Your task to perform on an android device: all mails in gmail Image 0: 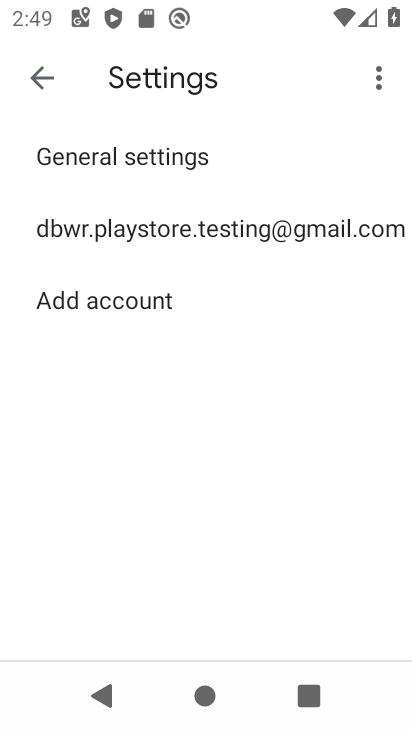
Step 0: press home button
Your task to perform on an android device: all mails in gmail Image 1: 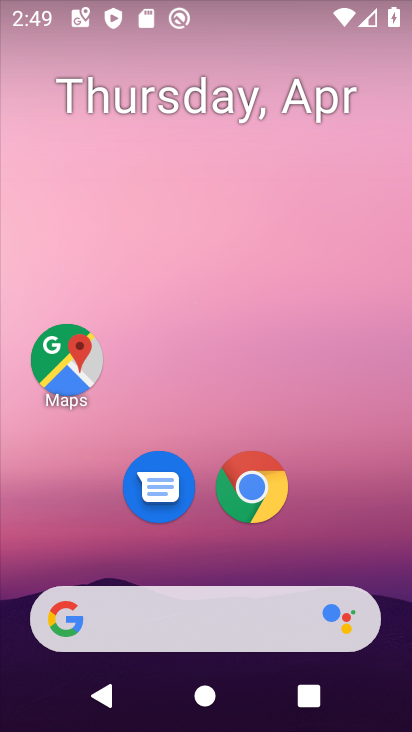
Step 1: drag from (214, 528) to (274, 118)
Your task to perform on an android device: all mails in gmail Image 2: 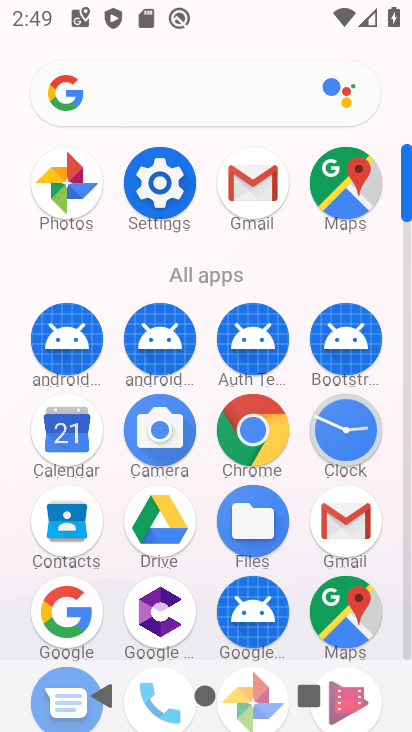
Step 2: click (340, 536)
Your task to perform on an android device: all mails in gmail Image 3: 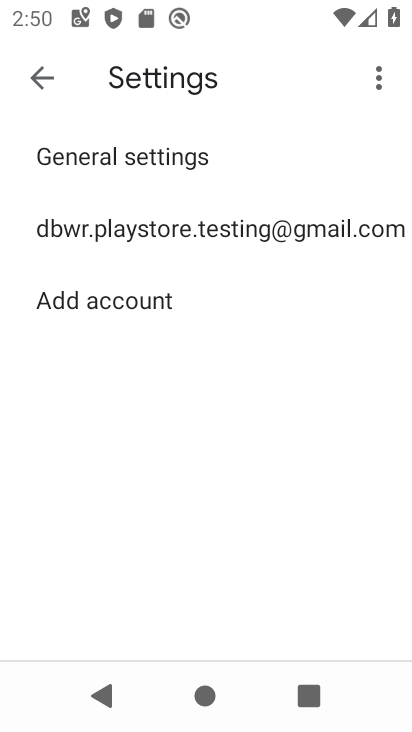
Step 3: click (45, 74)
Your task to perform on an android device: all mails in gmail Image 4: 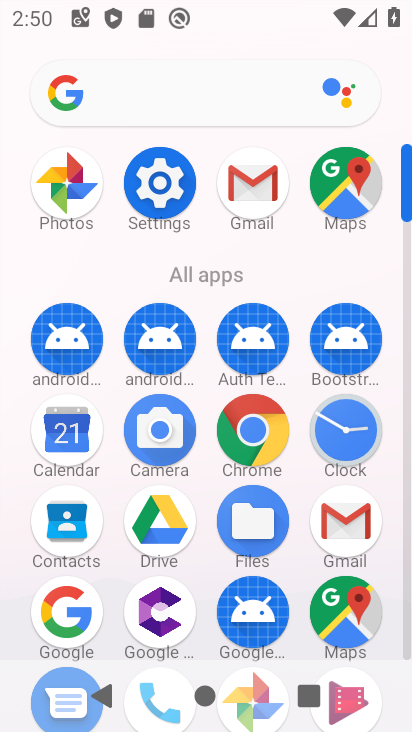
Step 4: click (248, 207)
Your task to perform on an android device: all mails in gmail Image 5: 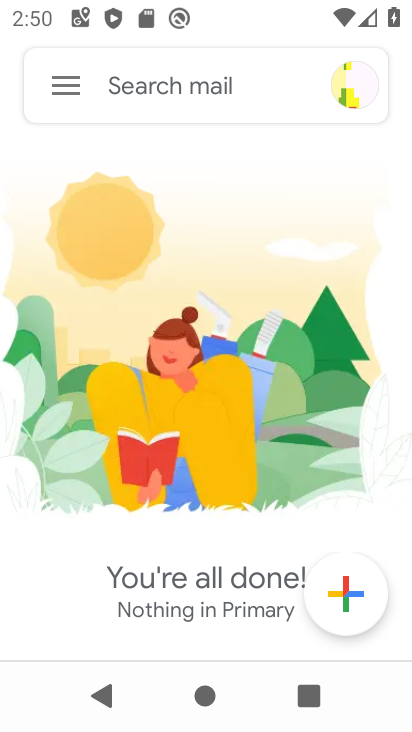
Step 5: click (58, 84)
Your task to perform on an android device: all mails in gmail Image 6: 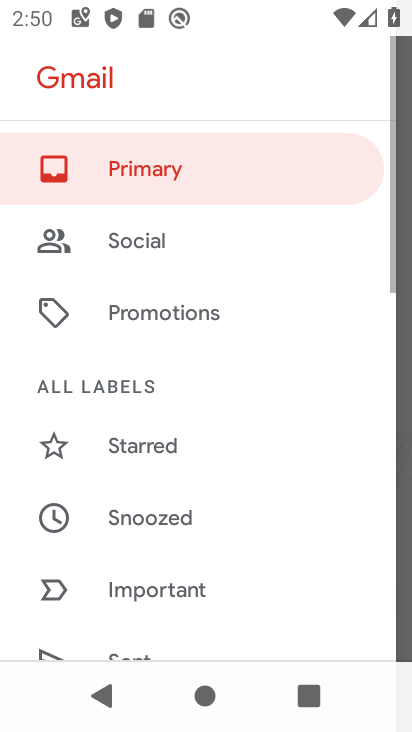
Step 6: drag from (160, 420) to (171, 264)
Your task to perform on an android device: all mails in gmail Image 7: 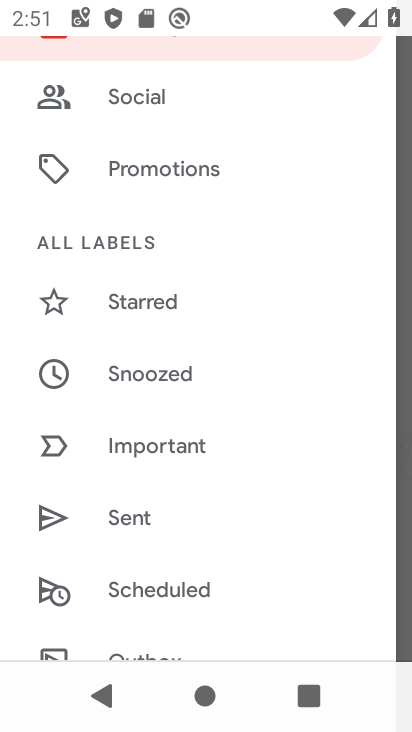
Step 7: drag from (225, 561) to (202, 164)
Your task to perform on an android device: all mails in gmail Image 8: 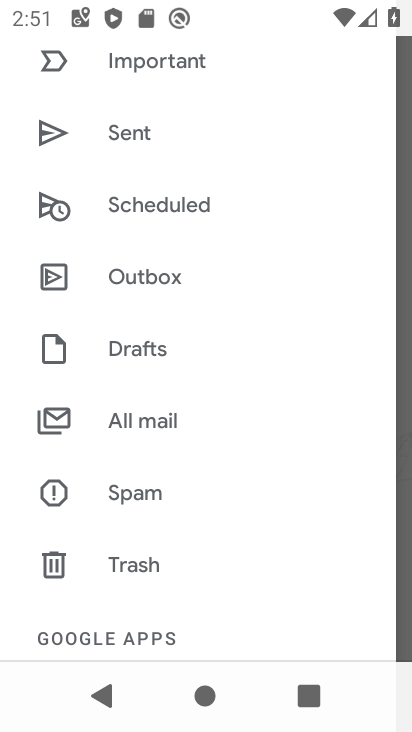
Step 8: click (185, 424)
Your task to perform on an android device: all mails in gmail Image 9: 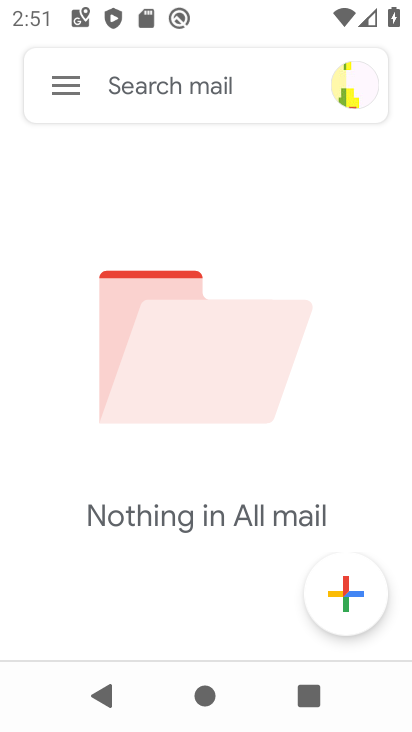
Step 9: task complete